Your task to perform on an android device: open sync settings in chrome Image 0: 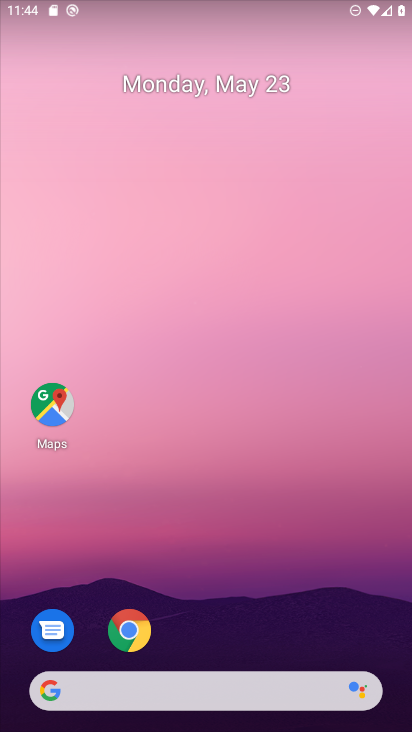
Step 0: click (131, 639)
Your task to perform on an android device: open sync settings in chrome Image 1: 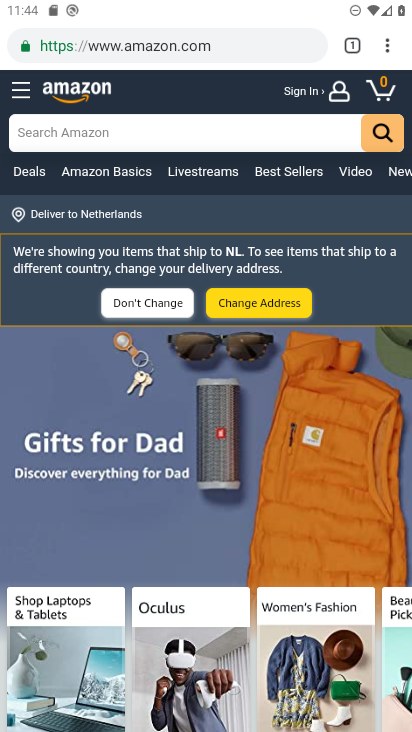
Step 1: click (388, 38)
Your task to perform on an android device: open sync settings in chrome Image 2: 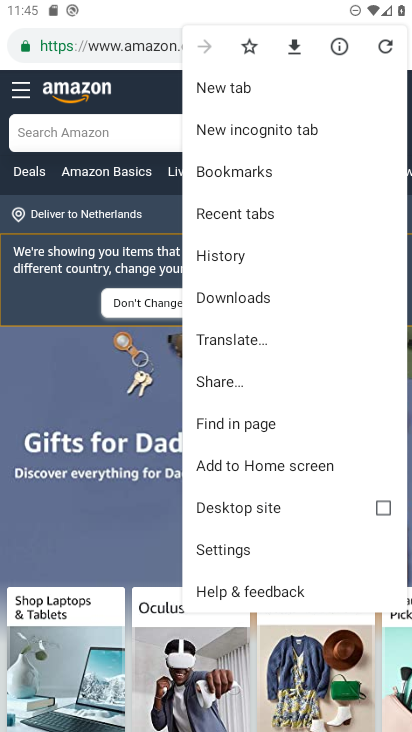
Step 2: click (217, 547)
Your task to perform on an android device: open sync settings in chrome Image 3: 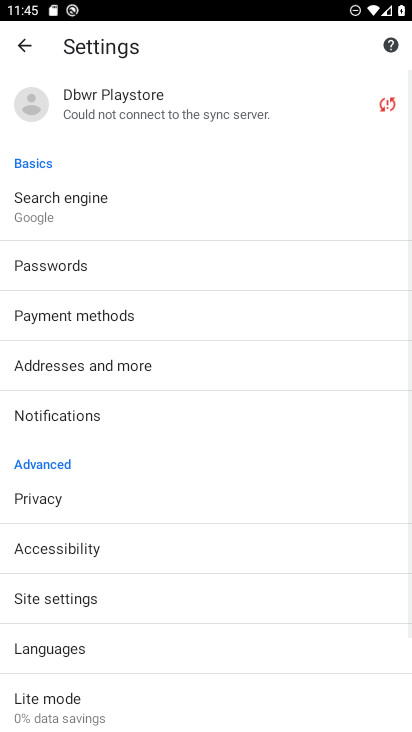
Step 3: click (142, 117)
Your task to perform on an android device: open sync settings in chrome Image 4: 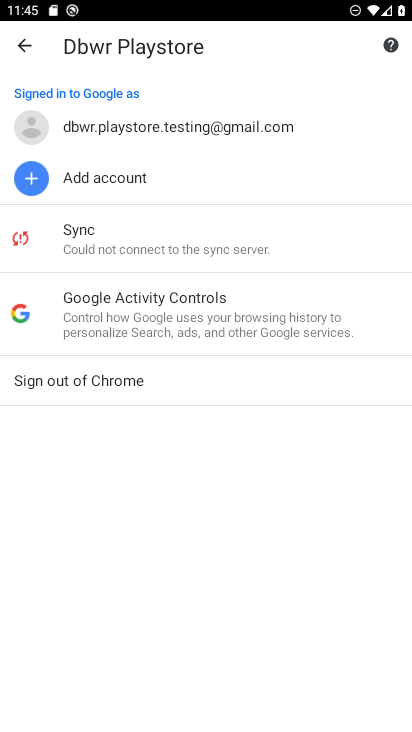
Step 4: click (208, 242)
Your task to perform on an android device: open sync settings in chrome Image 5: 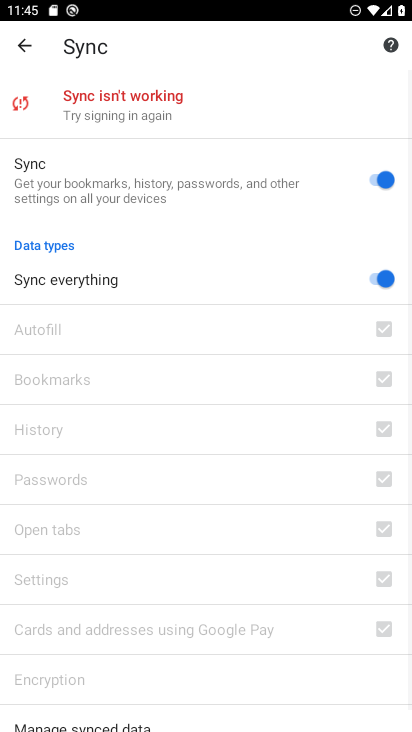
Step 5: task complete